Your task to perform on an android device: Open calendar and show me the first week of next month Image 0: 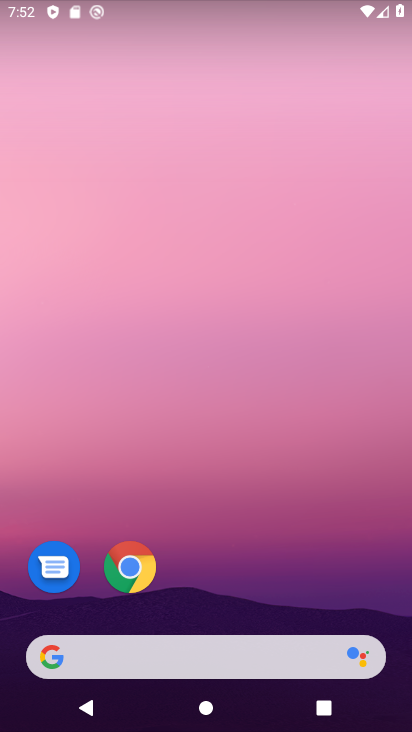
Step 0: click (128, 575)
Your task to perform on an android device: Open calendar and show me the first week of next month Image 1: 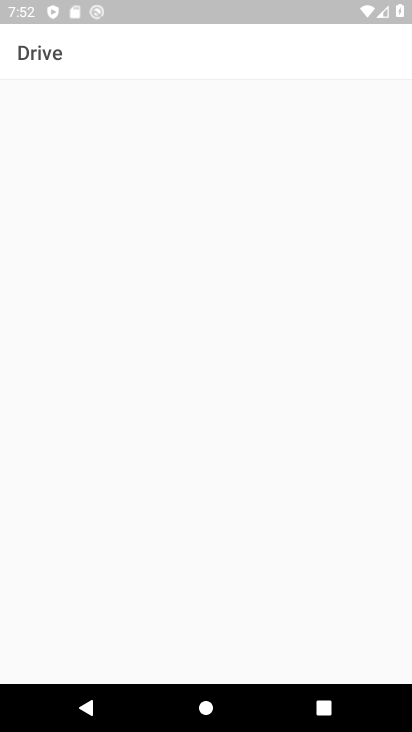
Step 1: press home button
Your task to perform on an android device: Open calendar and show me the first week of next month Image 2: 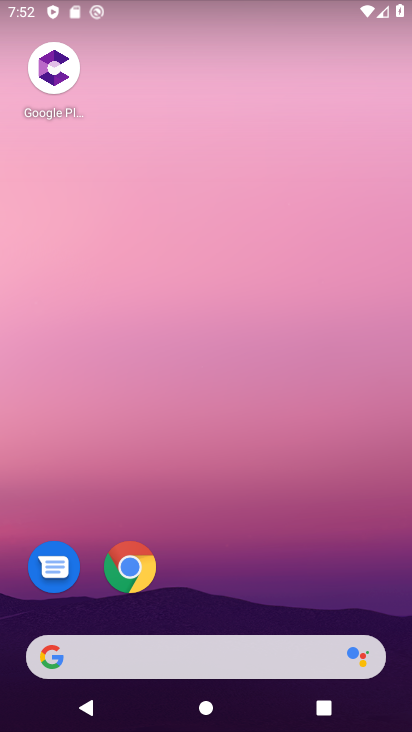
Step 2: drag from (285, 617) to (238, 35)
Your task to perform on an android device: Open calendar and show me the first week of next month Image 3: 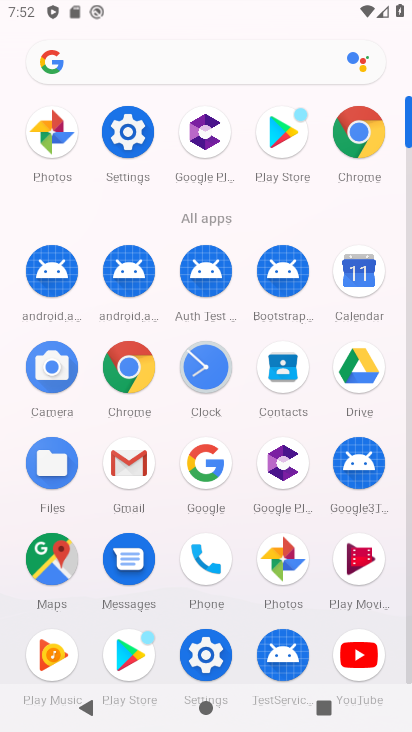
Step 3: click (358, 281)
Your task to perform on an android device: Open calendar and show me the first week of next month Image 4: 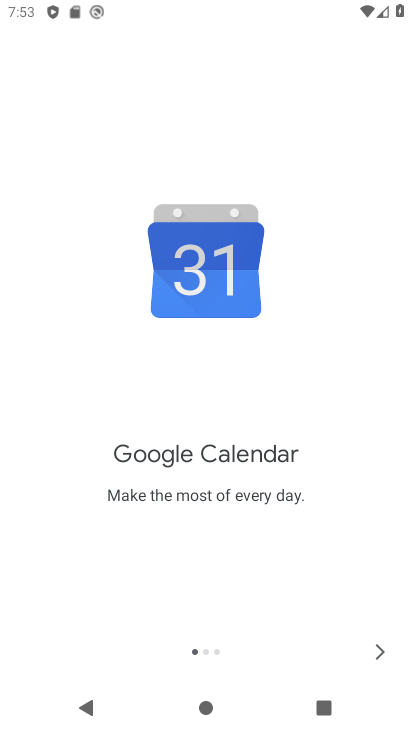
Step 4: click (378, 642)
Your task to perform on an android device: Open calendar and show me the first week of next month Image 5: 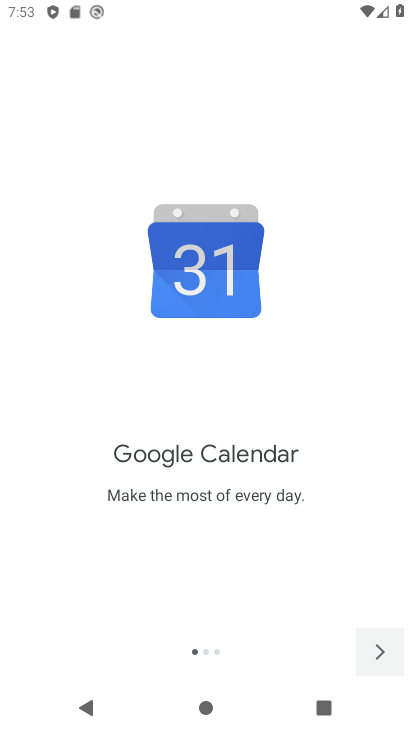
Step 5: click (378, 642)
Your task to perform on an android device: Open calendar and show me the first week of next month Image 6: 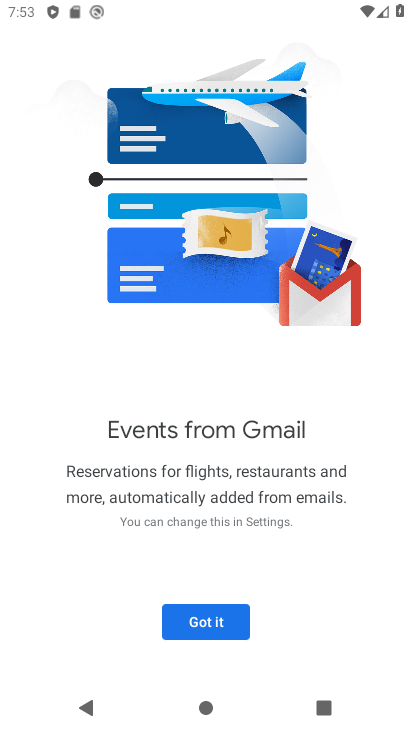
Step 6: click (188, 628)
Your task to perform on an android device: Open calendar and show me the first week of next month Image 7: 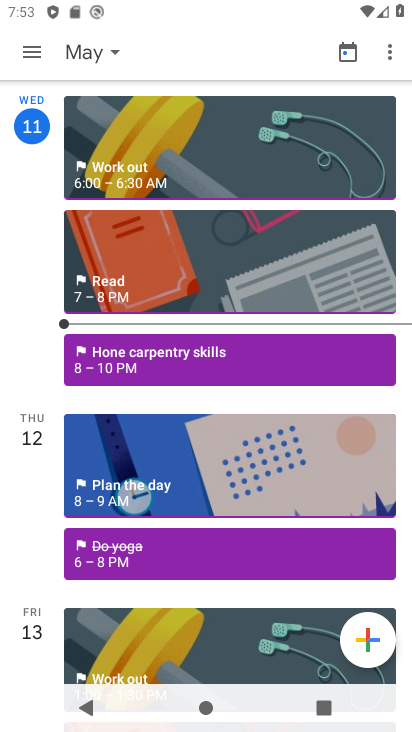
Step 7: click (36, 52)
Your task to perform on an android device: Open calendar and show me the first week of next month Image 8: 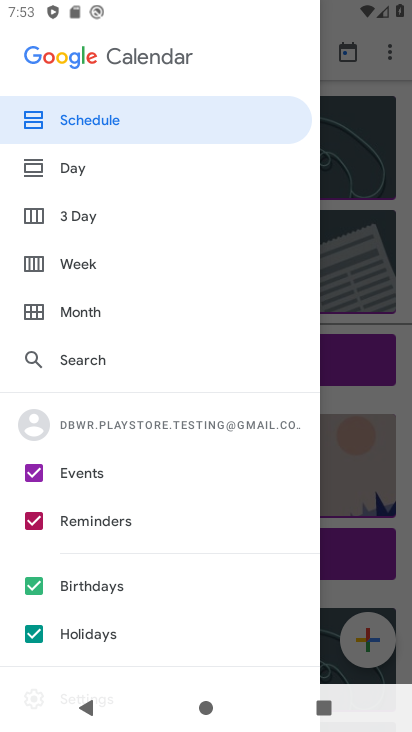
Step 8: click (81, 264)
Your task to perform on an android device: Open calendar and show me the first week of next month Image 9: 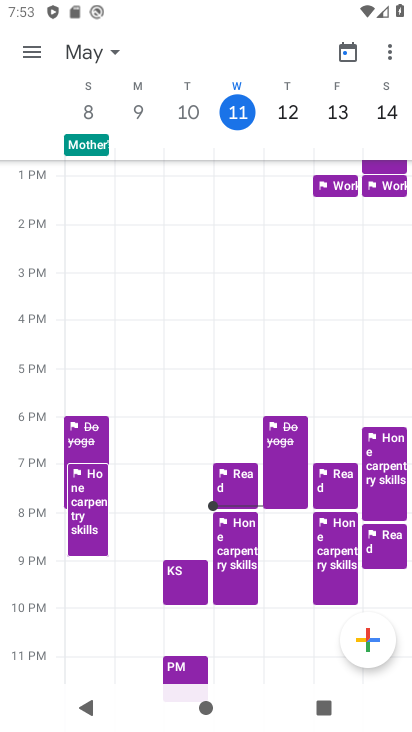
Step 9: task complete